Your task to perform on an android device: turn pop-ups off in chrome Image 0: 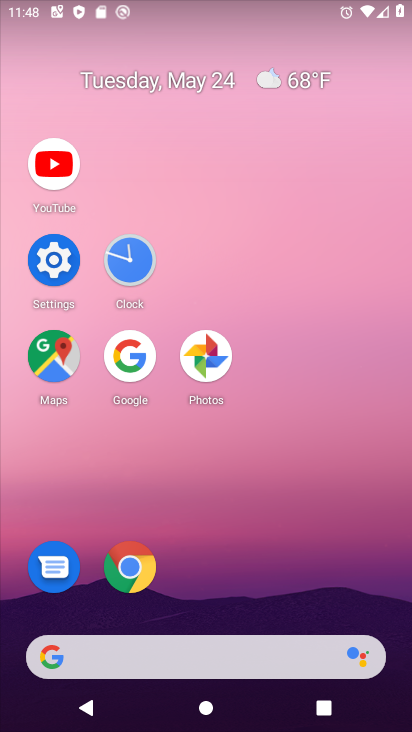
Step 0: click (138, 566)
Your task to perform on an android device: turn pop-ups off in chrome Image 1: 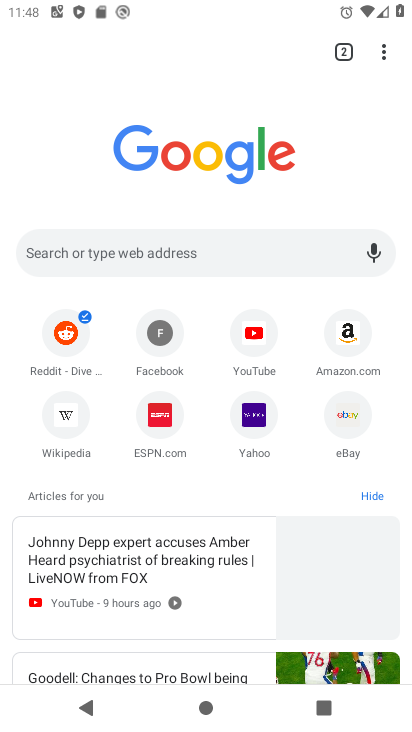
Step 1: click (390, 52)
Your task to perform on an android device: turn pop-ups off in chrome Image 2: 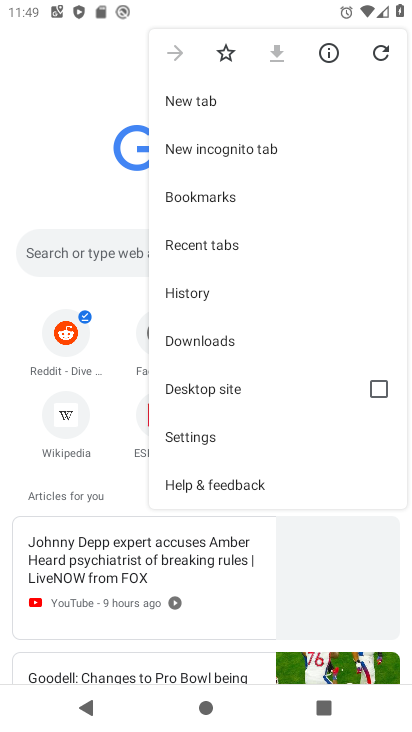
Step 2: click (185, 441)
Your task to perform on an android device: turn pop-ups off in chrome Image 3: 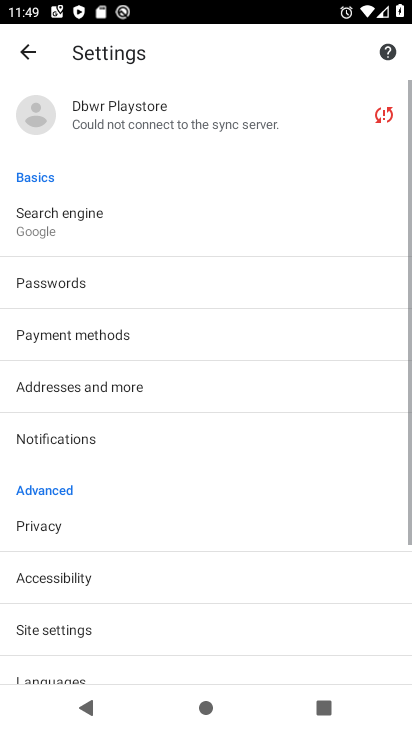
Step 3: drag from (174, 606) to (190, 189)
Your task to perform on an android device: turn pop-ups off in chrome Image 4: 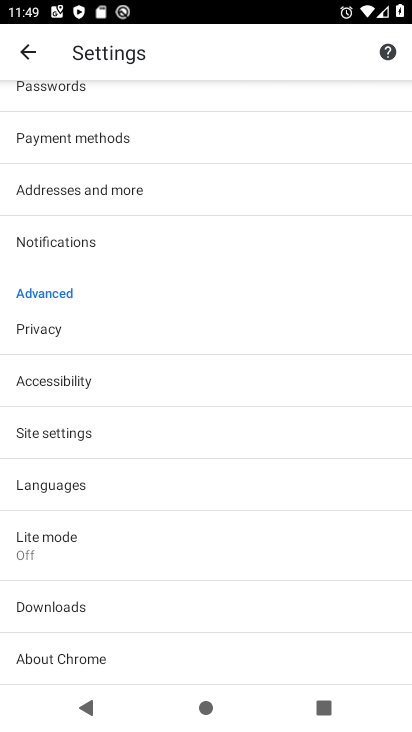
Step 4: click (90, 450)
Your task to perform on an android device: turn pop-ups off in chrome Image 5: 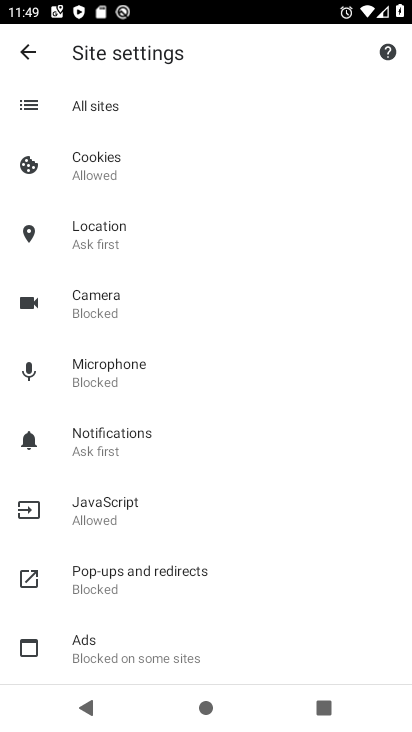
Step 5: click (100, 577)
Your task to perform on an android device: turn pop-ups off in chrome Image 6: 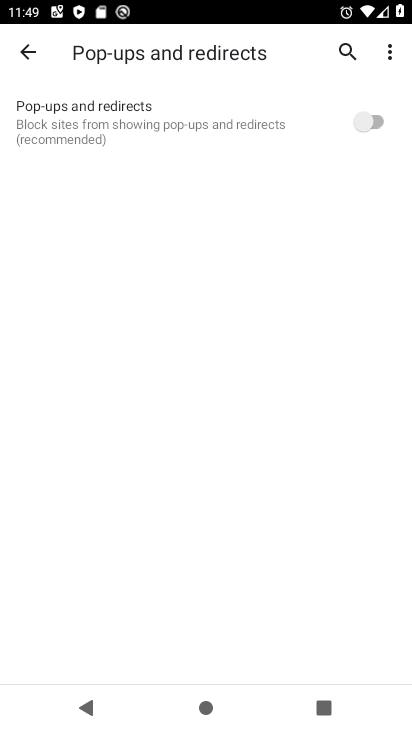
Step 6: task complete